Your task to perform on an android device: Go to calendar. Show me events next week Image 0: 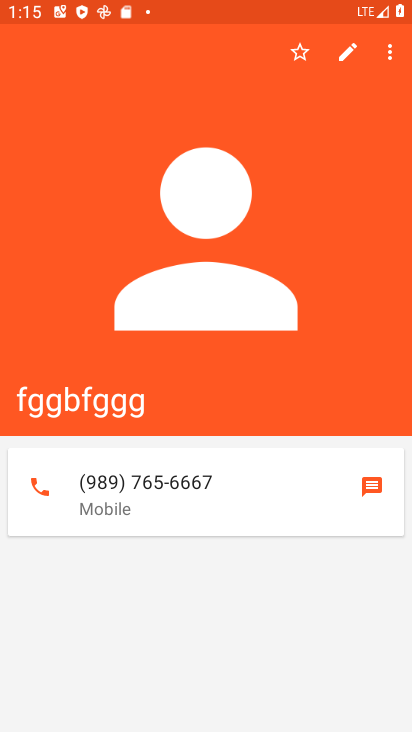
Step 0: press home button
Your task to perform on an android device: Go to calendar. Show me events next week Image 1: 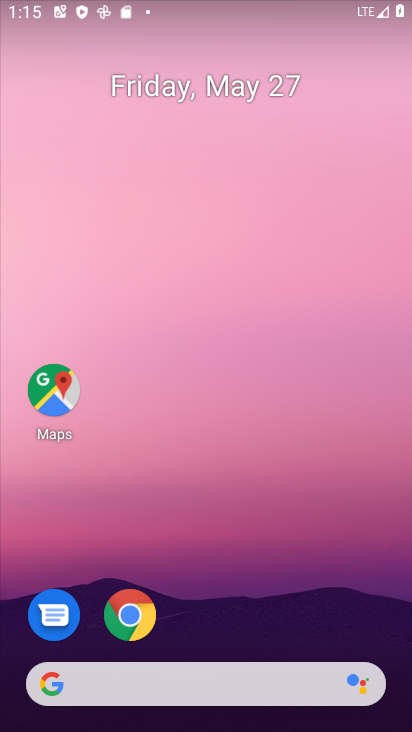
Step 1: drag from (262, 621) to (342, 25)
Your task to perform on an android device: Go to calendar. Show me events next week Image 2: 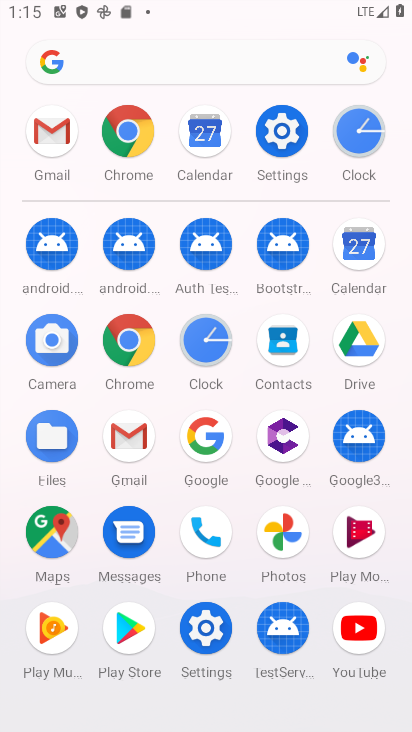
Step 2: click (370, 258)
Your task to perform on an android device: Go to calendar. Show me events next week Image 3: 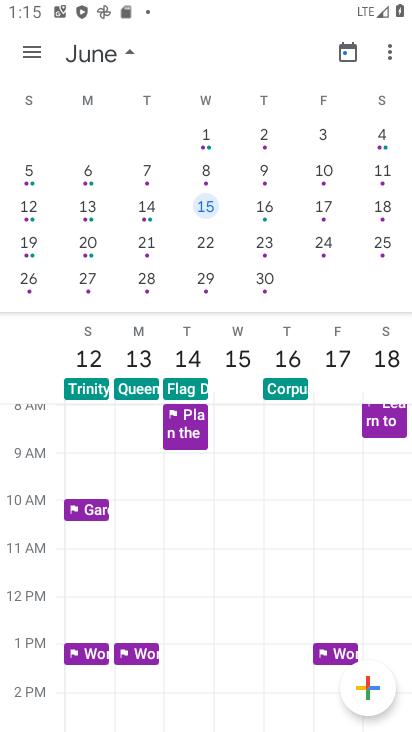
Step 3: press home button
Your task to perform on an android device: Go to calendar. Show me events next week Image 4: 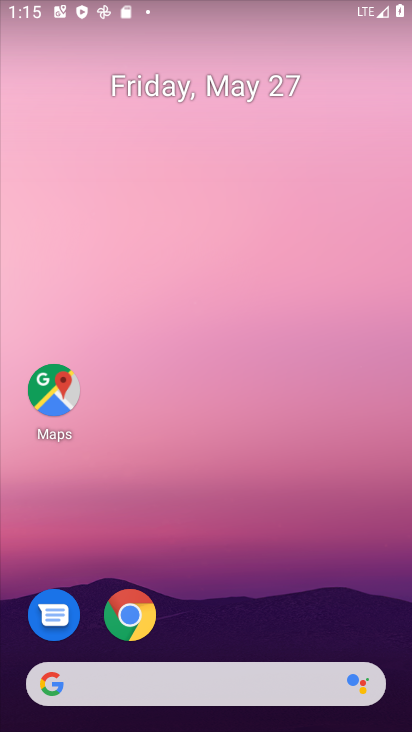
Step 4: drag from (246, 639) to (266, 57)
Your task to perform on an android device: Go to calendar. Show me events next week Image 5: 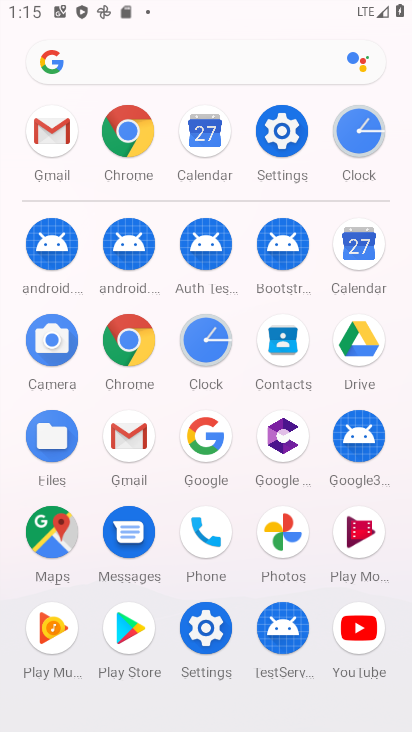
Step 5: click (364, 241)
Your task to perform on an android device: Go to calendar. Show me events next week Image 6: 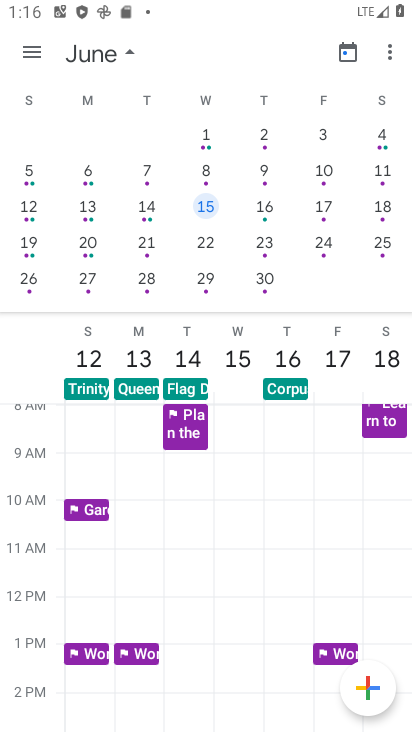
Step 6: drag from (45, 193) to (412, 246)
Your task to perform on an android device: Go to calendar. Show me events next week Image 7: 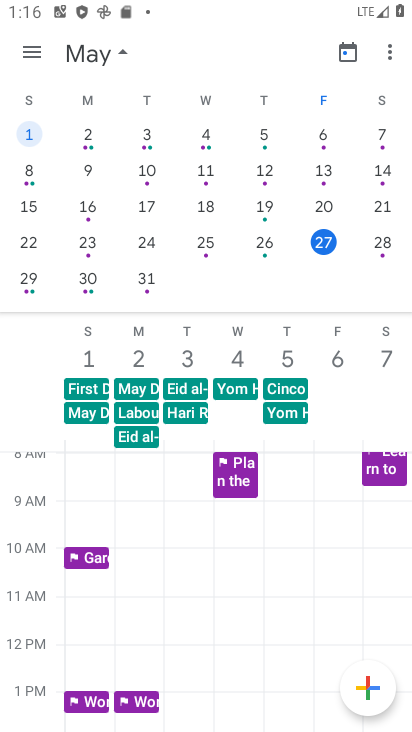
Step 7: click (85, 283)
Your task to perform on an android device: Go to calendar. Show me events next week Image 8: 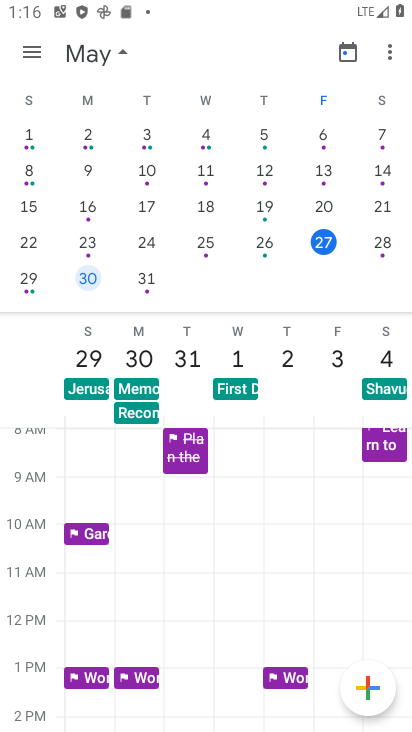
Step 8: task complete